Your task to perform on an android device: What's on my calendar today? Image 0: 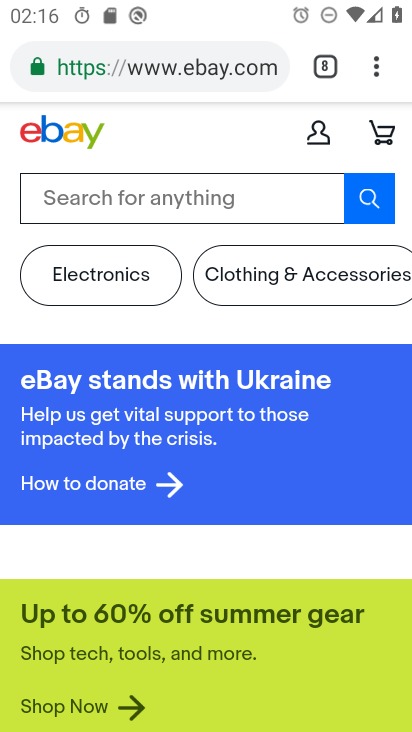
Step 0: press home button
Your task to perform on an android device: What's on my calendar today? Image 1: 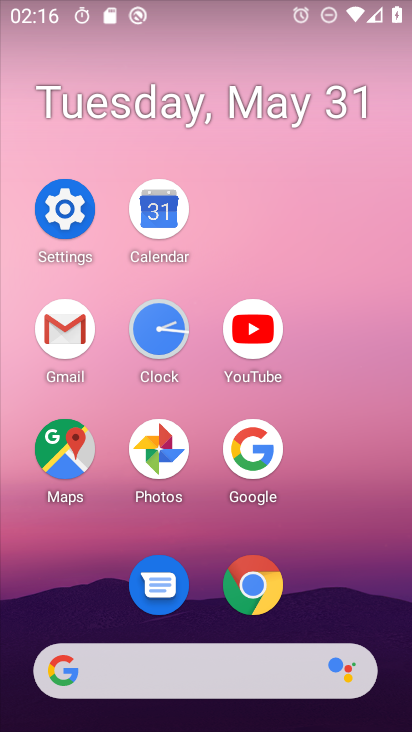
Step 1: click (164, 221)
Your task to perform on an android device: What's on my calendar today? Image 2: 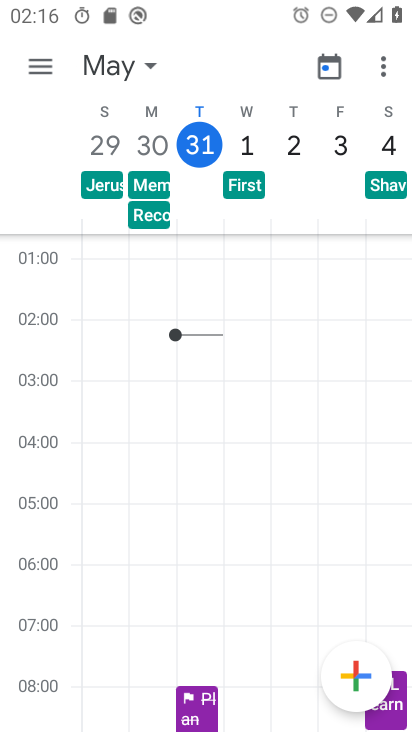
Step 2: click (202, 150)
Your task to perform on an android device: What's on my calendar today? Image 3: 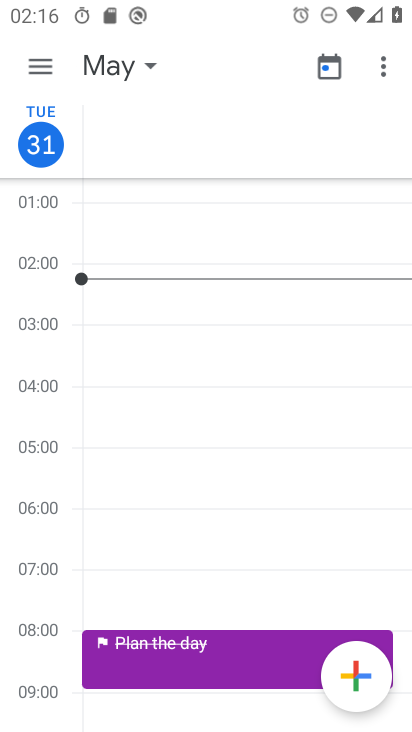
Step 3: task complete